Your task to perform on an android device: read, delete, or share a saved page in the chrome app Image 0: 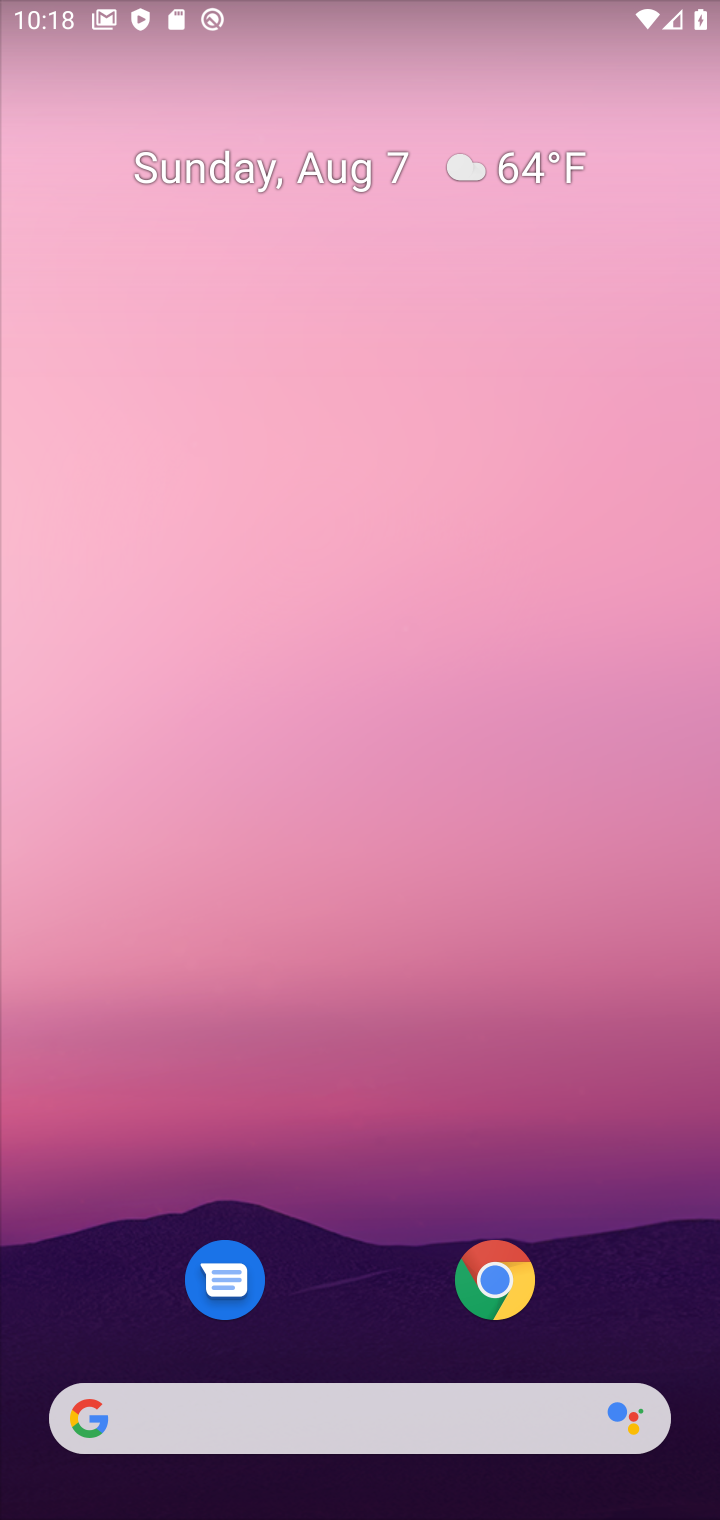
Step 0: click (494, 1294)
Your task to perform on an android device: read, delete, or share a saved page in the chrome app Image 1: 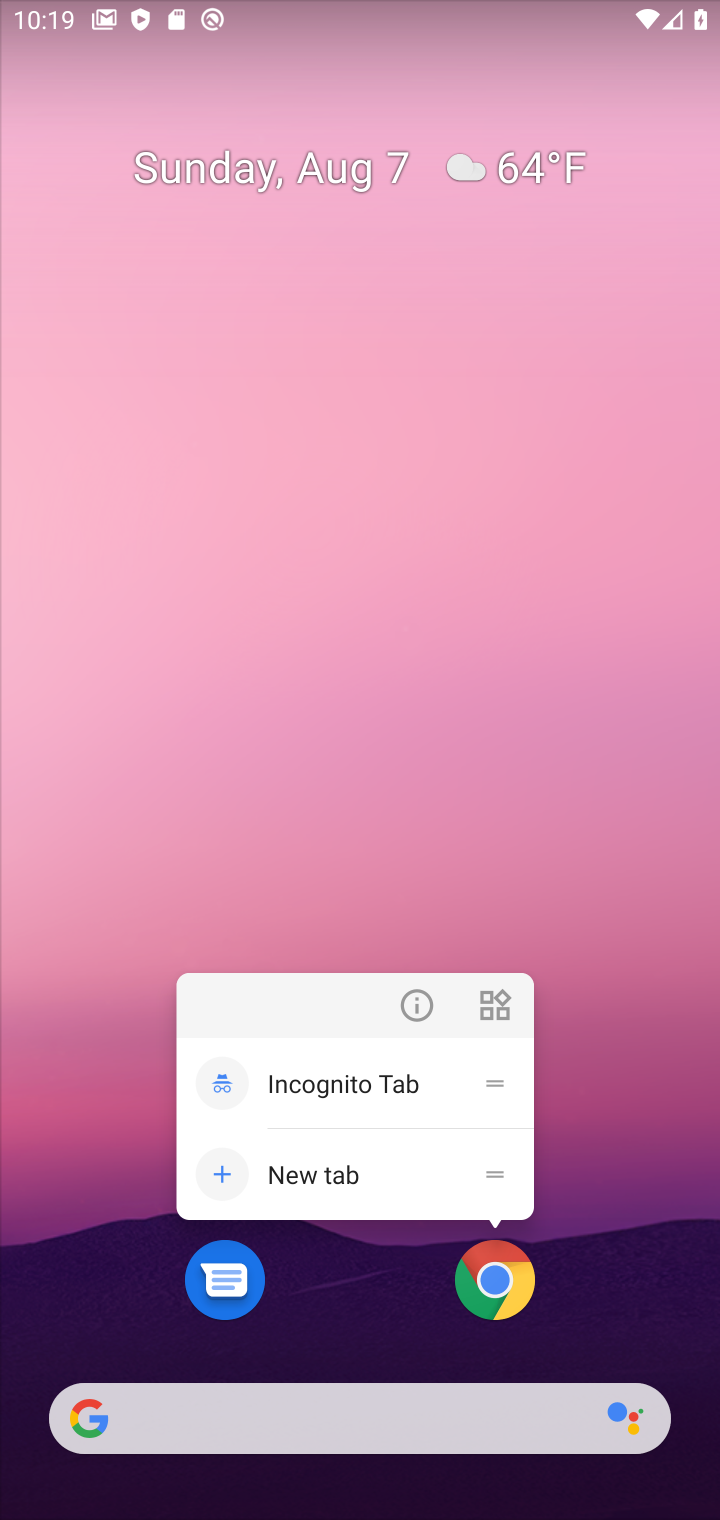
Step 1: click (483, 1291)
Your task to perform on an android device: read, delete, or share a saved page in the chrome app Image 2: 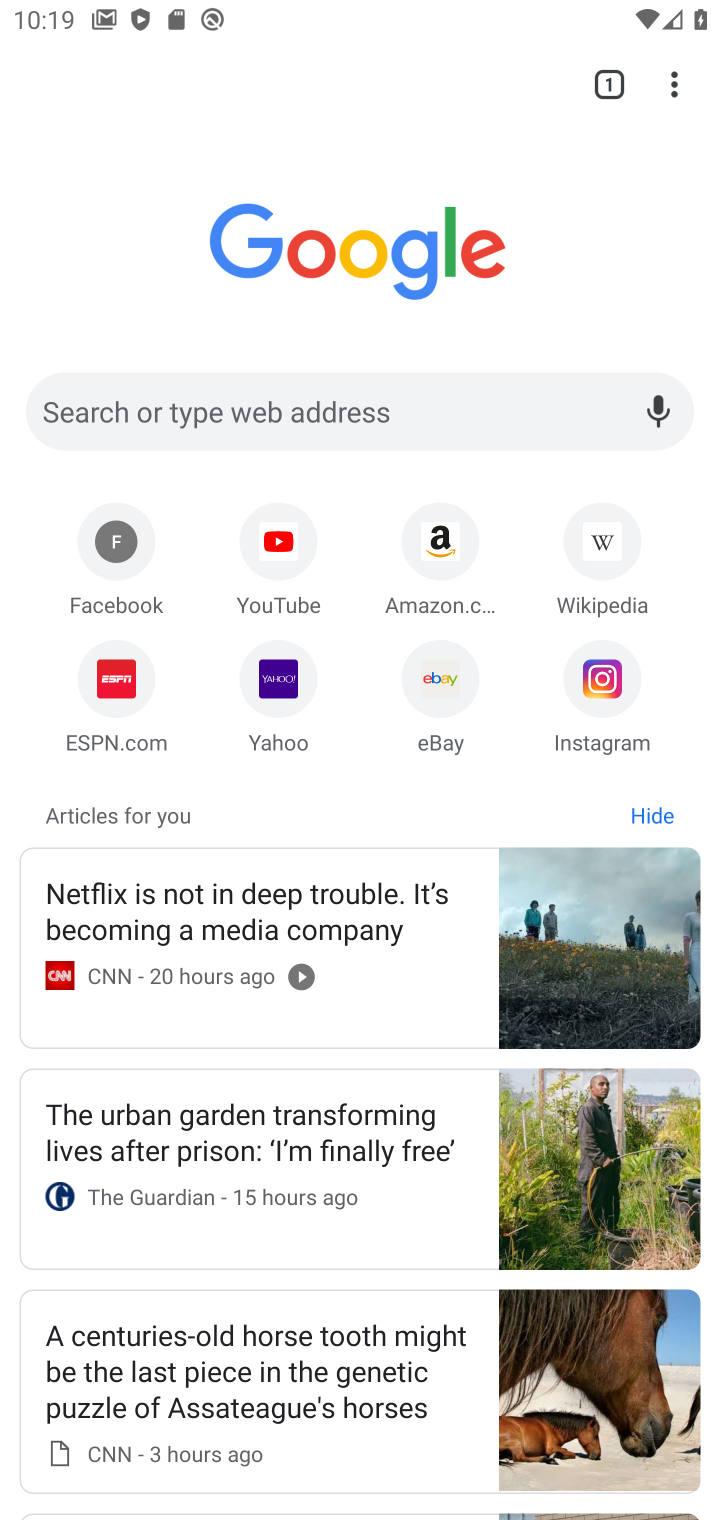
Step 2: click (661, 107)
Your task to perform on an android device: read, delete, or share a saved page in the chrome app Image 3: 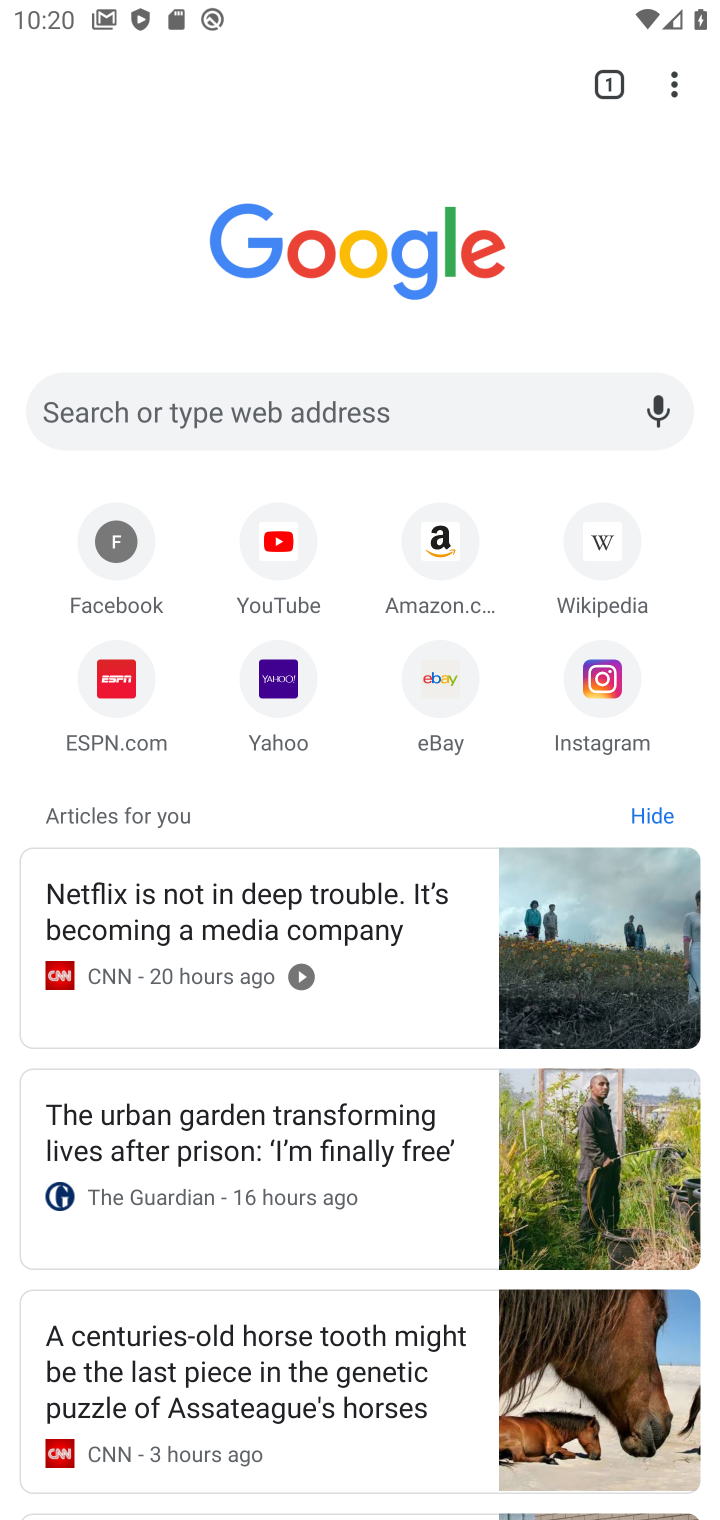
Step 3: task complete